Your task to perform on an android device: delete a single message in the gmail app Image 0: 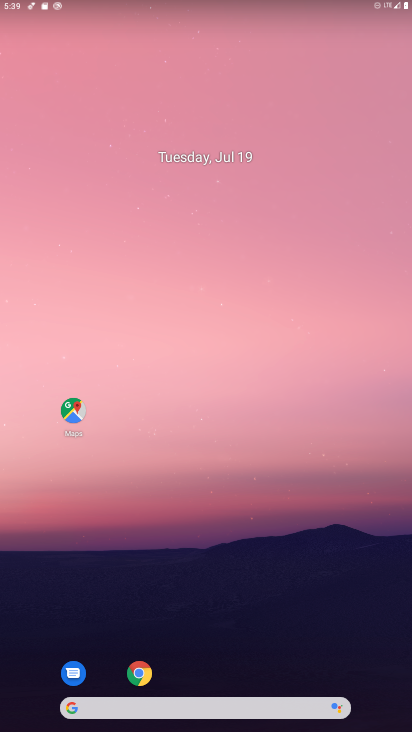
Step 0: press home button
Your task to perform on an android device: delete a single message in the gmail app Image 1: 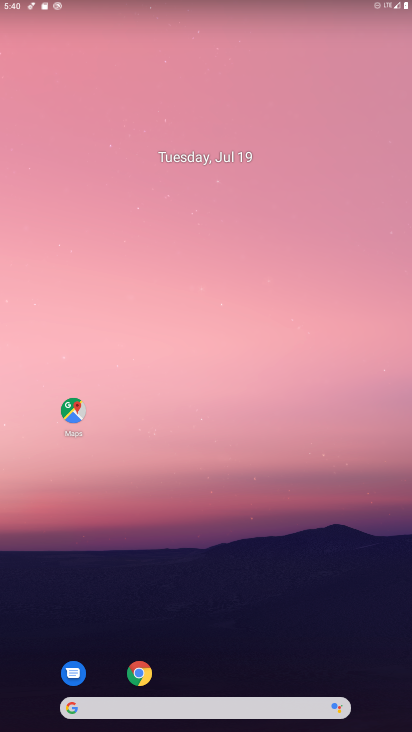
Step 1: drag from (221, 678) to (186, 5)
Your task to perform on an android device: delete a single message in the gmail app Image 2: 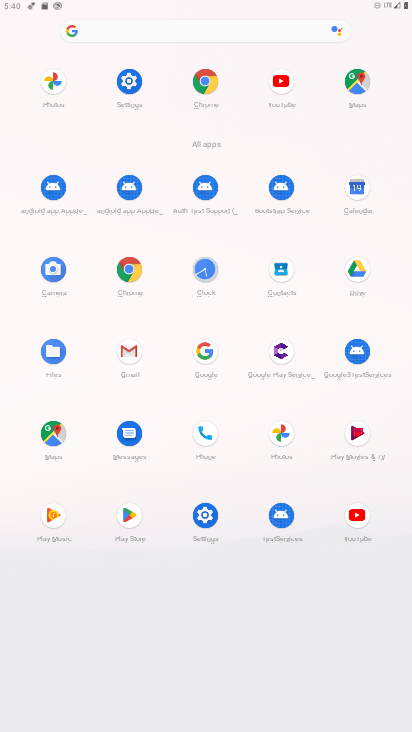
Step 2: click (125, 346)
Your task to perform on an android device: delete a single message in the gmail app Image 3: 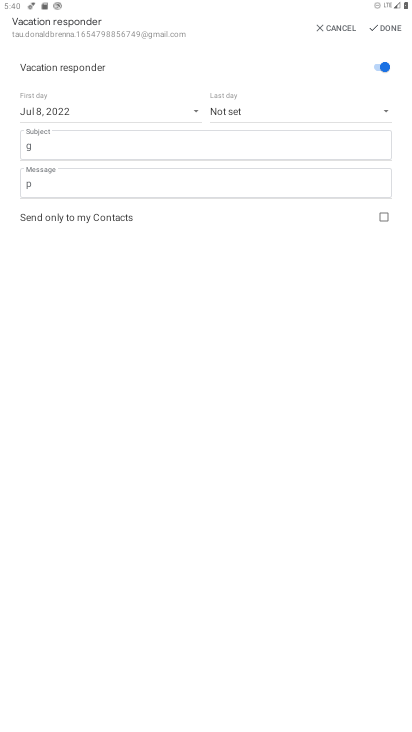
Step 3: press back button
Your task to perform on an android device: delete a single message in the gmail app Image 4: 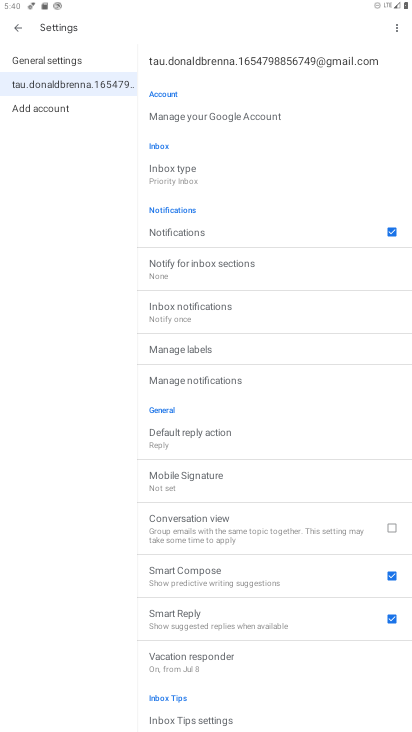
Step 4: click (15, 18)
Your task to perform on an android device: delete a single message in the gmail app Image 5: 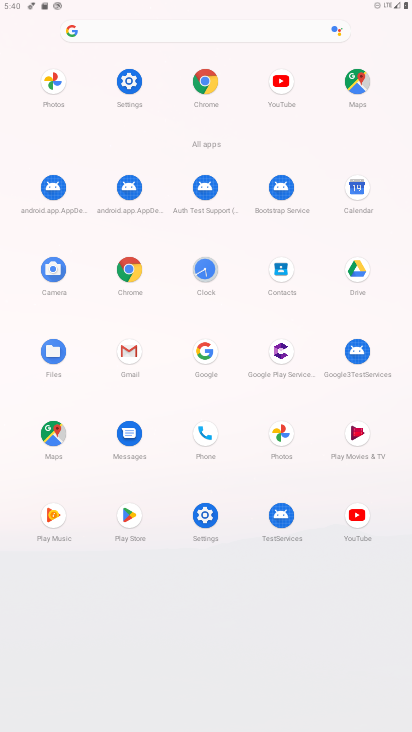
Step 5: click (121, 346)
Your task to perform on an android device: delete a single message in the gmail app Image 6: 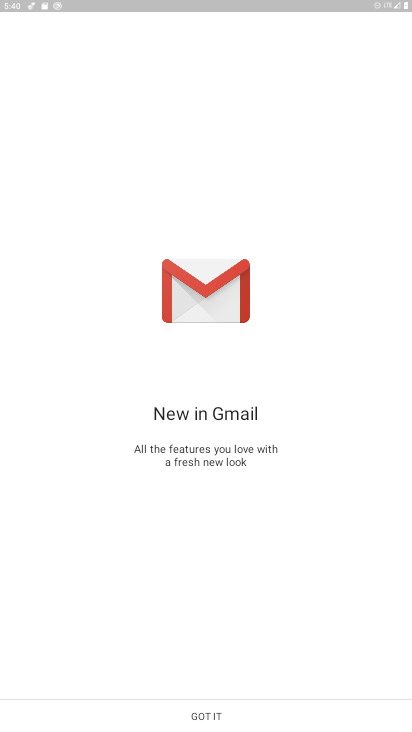
Step 6: click (229, 716)
Your task to perform on an android device: delete a single message in the gmail app Image 7: 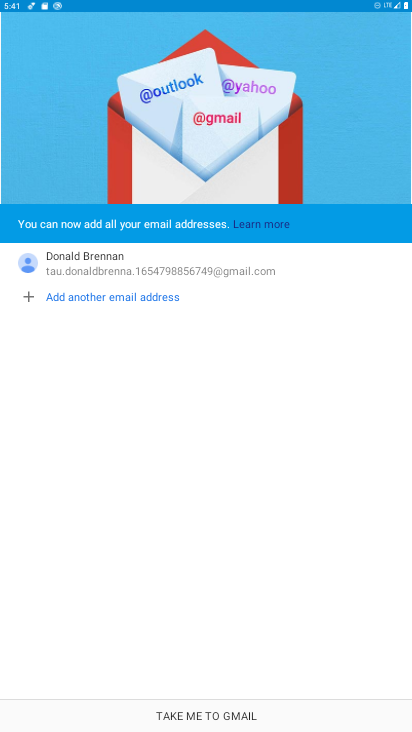
Step 7: click (229, 716)
Your task to perform on an android device: delete a single message in the gmail app Image 8: 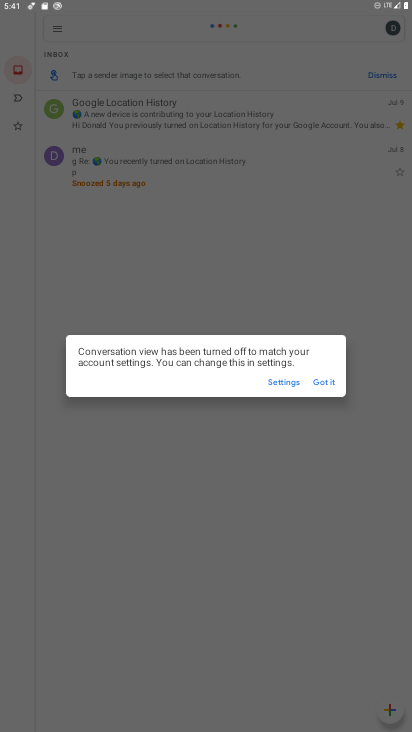
Step 8: click (330, 387)
Your task to perform on an android device: delete a single message in the gmail app Image 9: 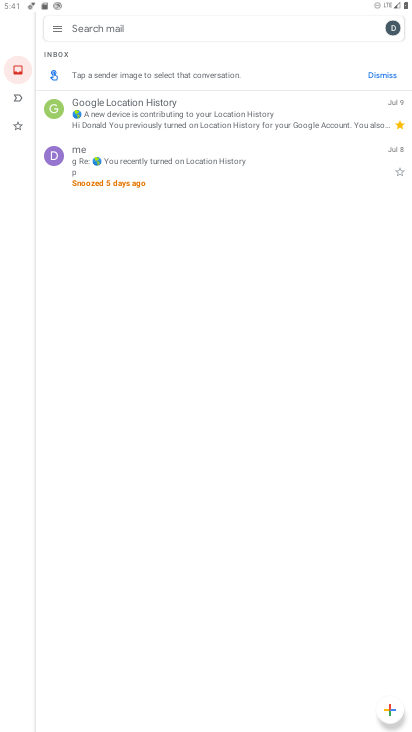
Step 9: click (51, 116)
Your task to perform on an android device: delete a single message in the gmail app Image 10: 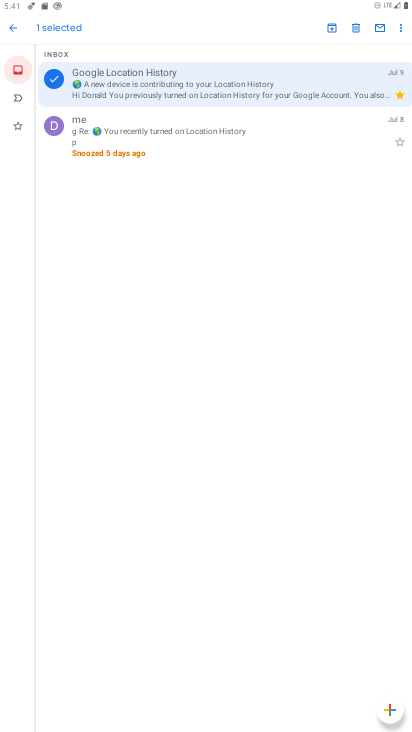
Step 10: click (357, 28)
Your task to perform on an android device: delete a single message in the gmail app Image 11: 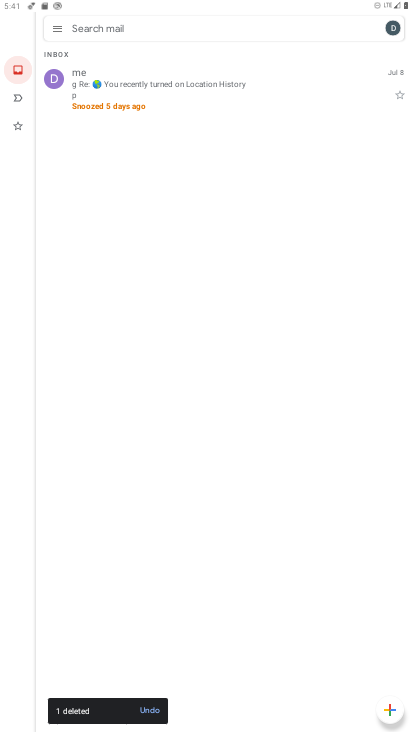
Step 11: task complete